Your task to perform on an android device: open app "Spotify: Music and Podcasts" (install if not already installed) Image 0: 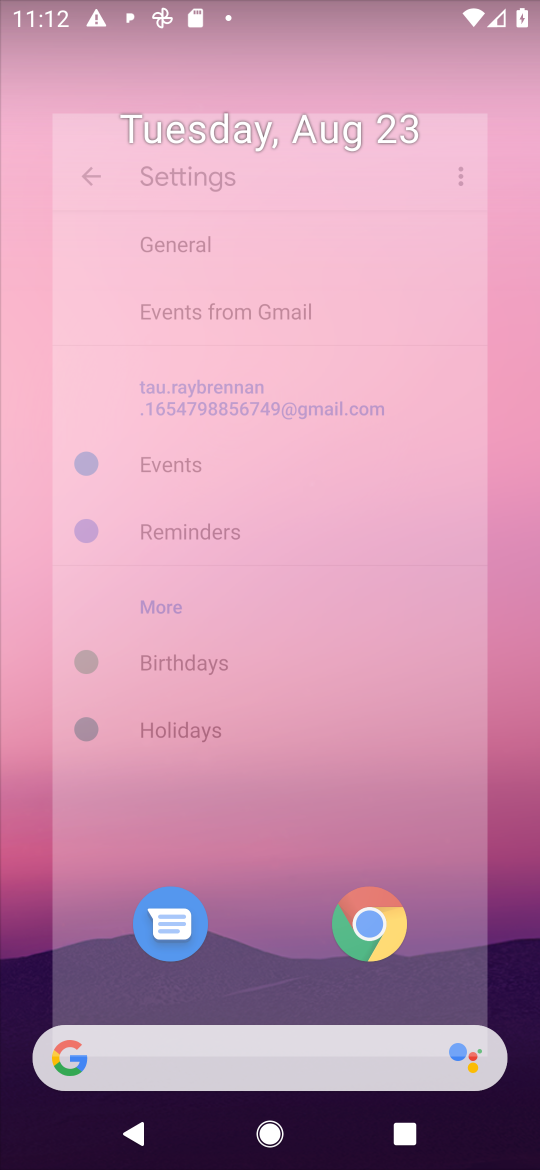
Step 0: press home button
Your task to perform on an android device: open app "Spotify: Music and Podcasts" (install if not already installed) Image 1: 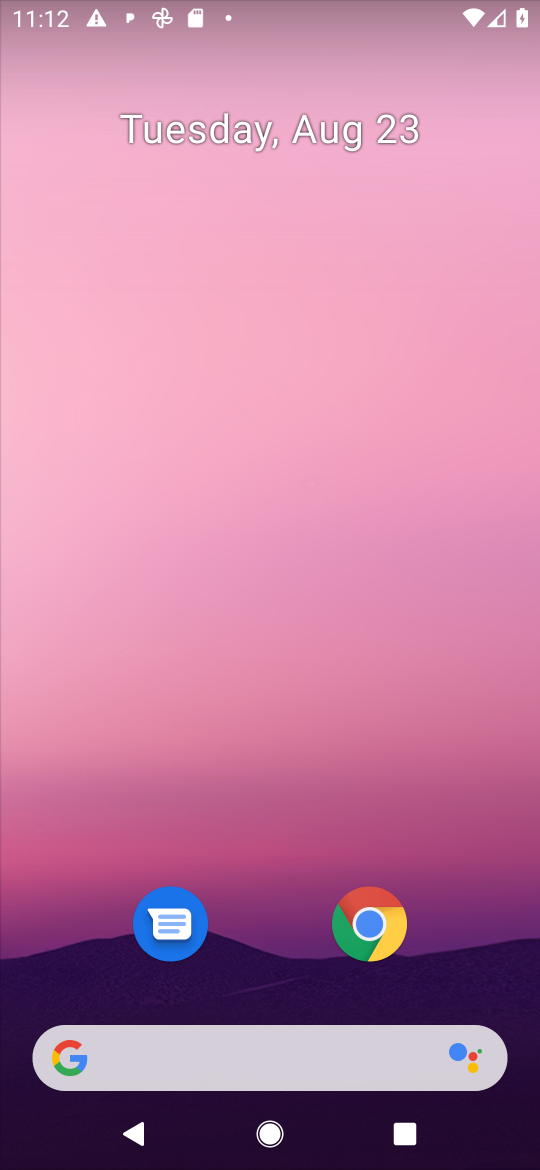
Step 1: drag from (468, 962) to (471, 163)
Your task to perform on an android device: open app "Spotify: Music and Podcasts" (install if not already installed) Image 2: 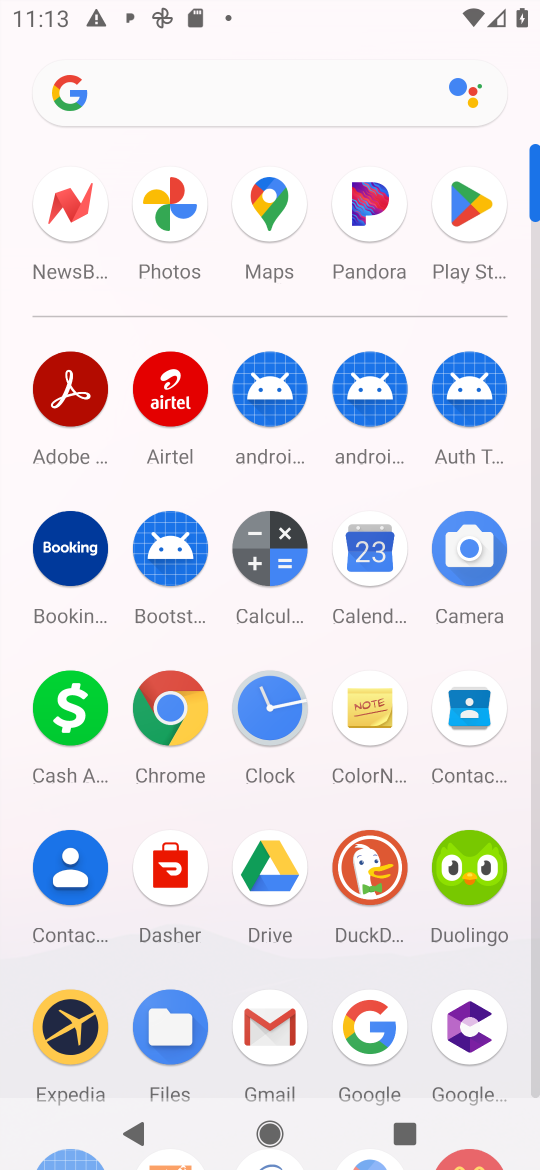
Step 2: click (461, 209)
Your task to perform on an android device: open app "Spotify: Music and Podcasts" (install if not already installed) Image 3: 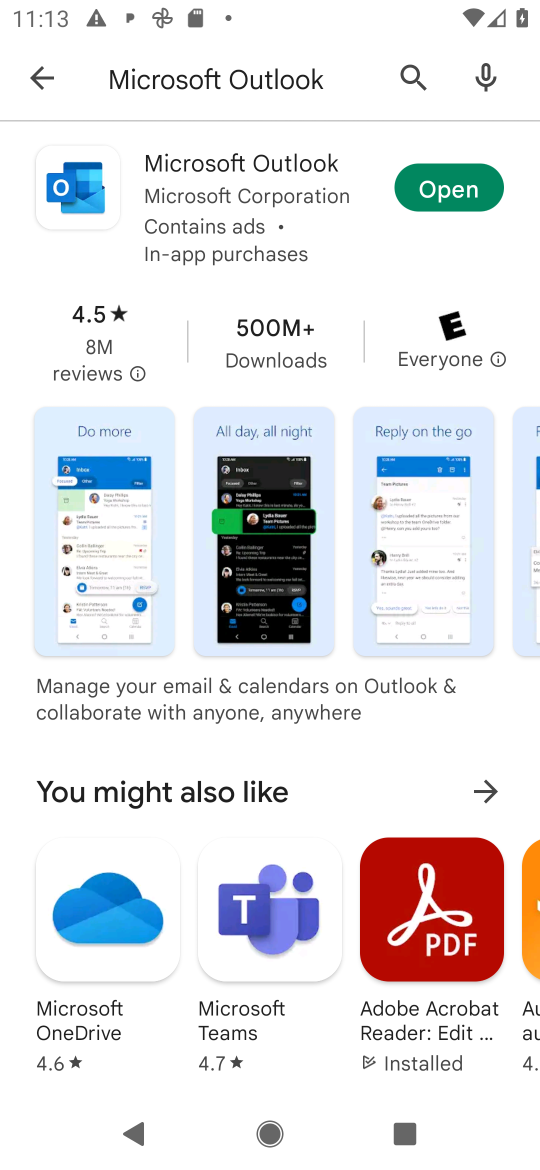
Step 3: press back button
Your task to perform on an android device: open app "Spotify: Music and Podcasts" (install if not already installed) Image 4: 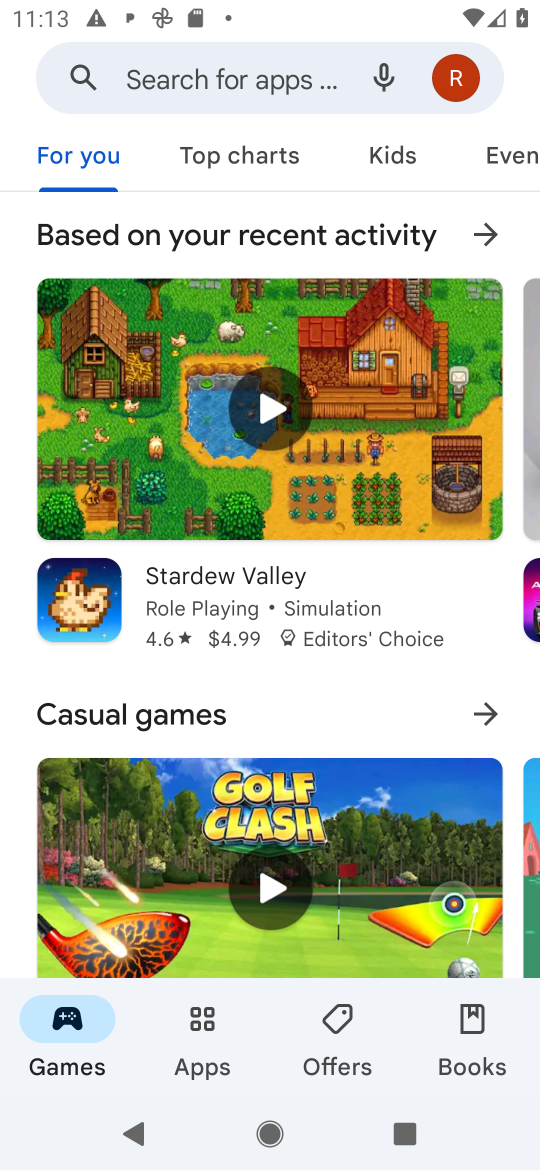
Step 4: click (221, 74)
Your task to perform on an android device: open app "Spotify: Music and Podcasts" (install if not already installed) Image 5: 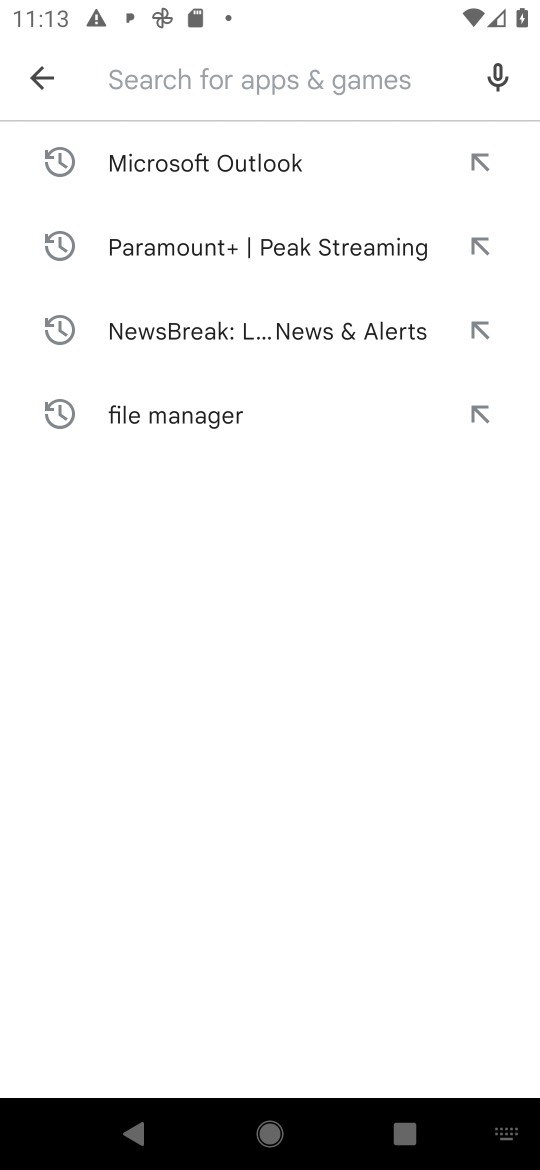
Step 5: type "Spotify: Music and Podcasts"
Your task to perform on an android device: open app "Spotify: Music and Podcasts" (install if not already installed) Image 6: 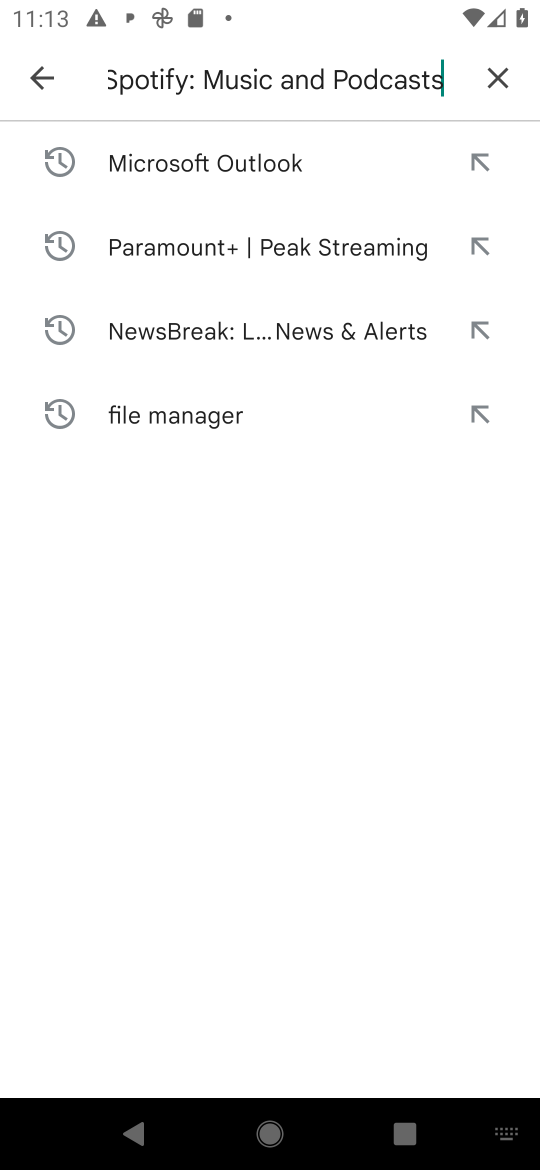
Step 6: press enter
Your task to perform on an android device: open app "Spotify: Music and Podcasts" (install if not already installed) Image 7: 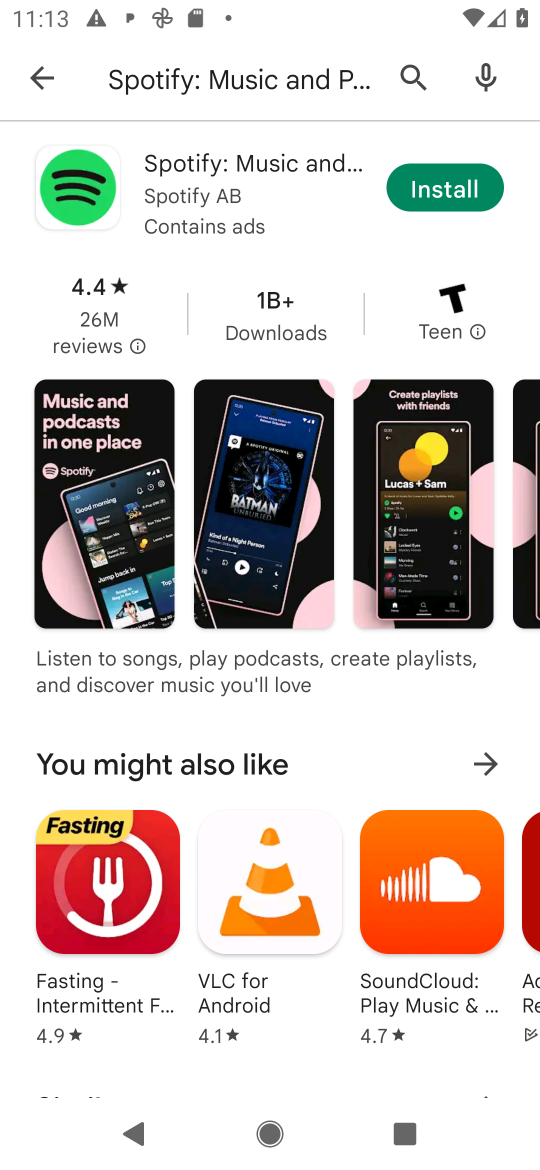
Step 7: click (438, 187)
Your task to perform on an android device: open app "Spotify: Music and Podcasts" (install if not already installed) Image 8: 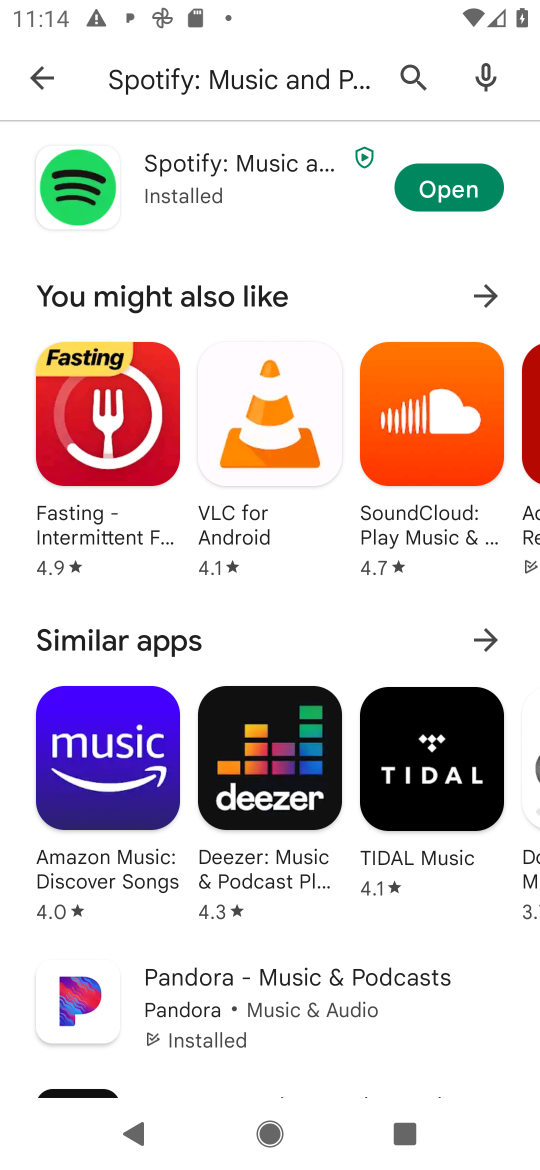
Step 8: click (434, 182)
Your task to perform on an android device: open app "Spotify: Music and Podcasts" (install if not already installed) Image 9: 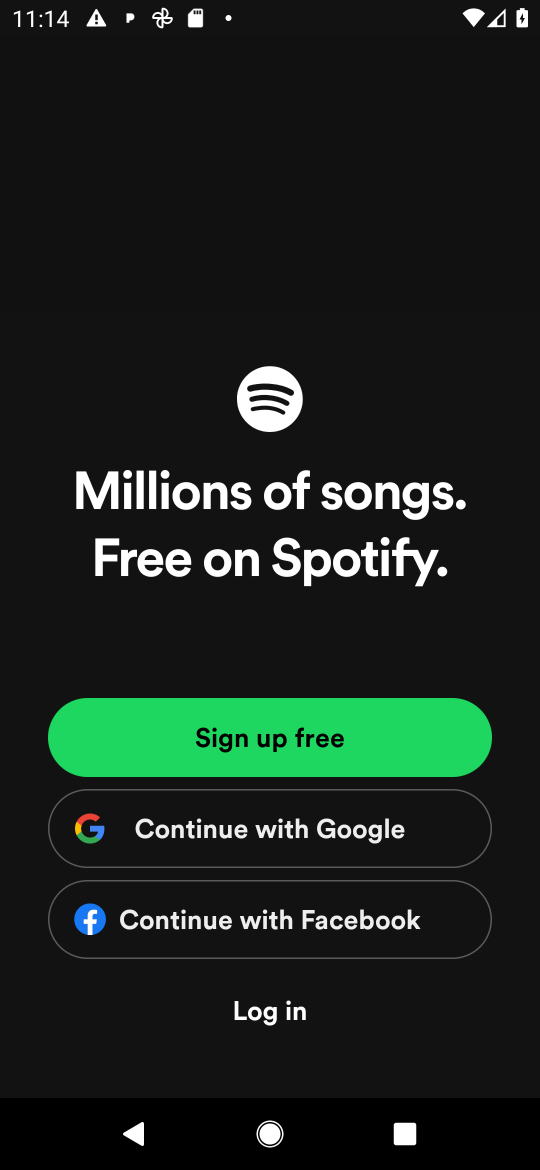
Step 9: task complete